Your task to perform on an android device: toggle sleep mode Image 0: 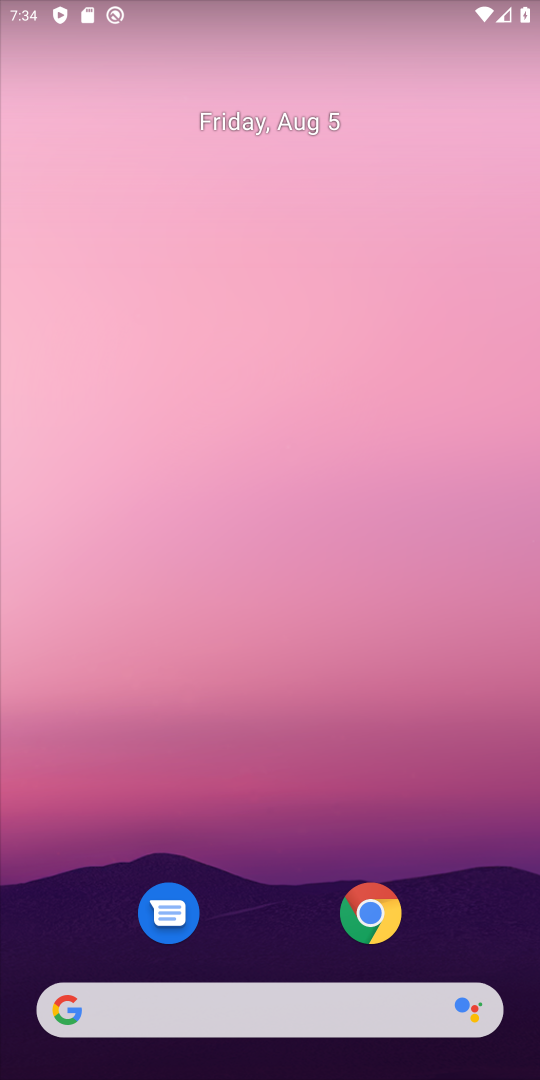
Step 0: drag from (467, 858) to (467, 285)
Your task to perform on an android device: toggle sleep mode Image 1: 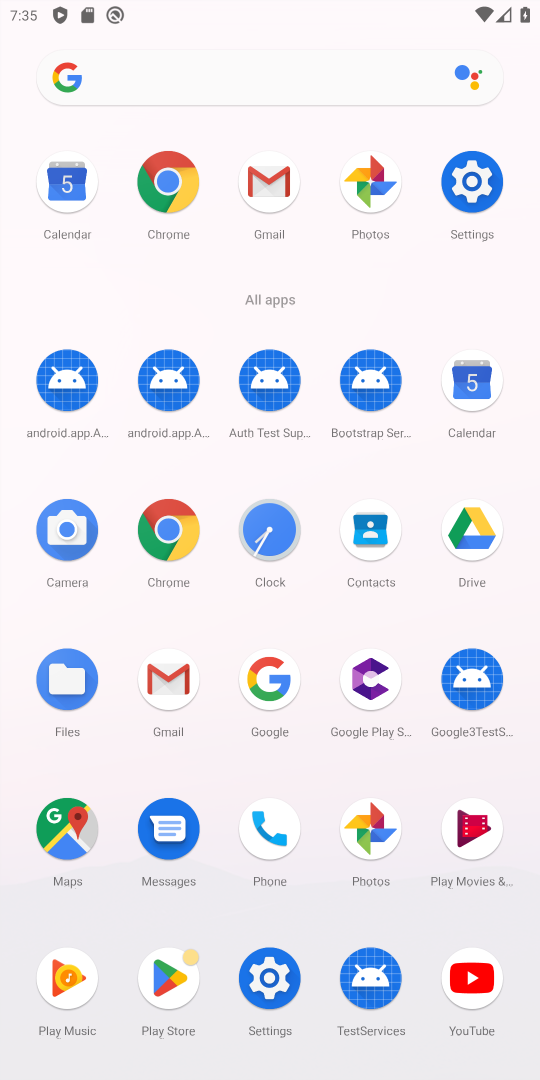
Step 1: click (273, 975)
Your task to perform on an android device: toggle sleep mode Image 2: 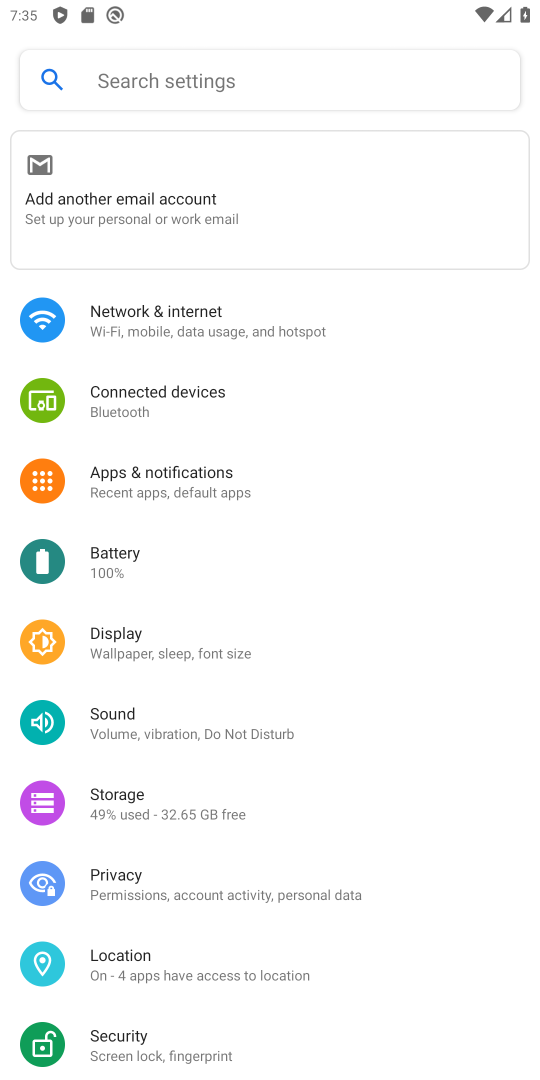
Step 2: drag from (441, 929) to (440, 640)
Your task to perform on an android device: toggle sleep mode Image 3: 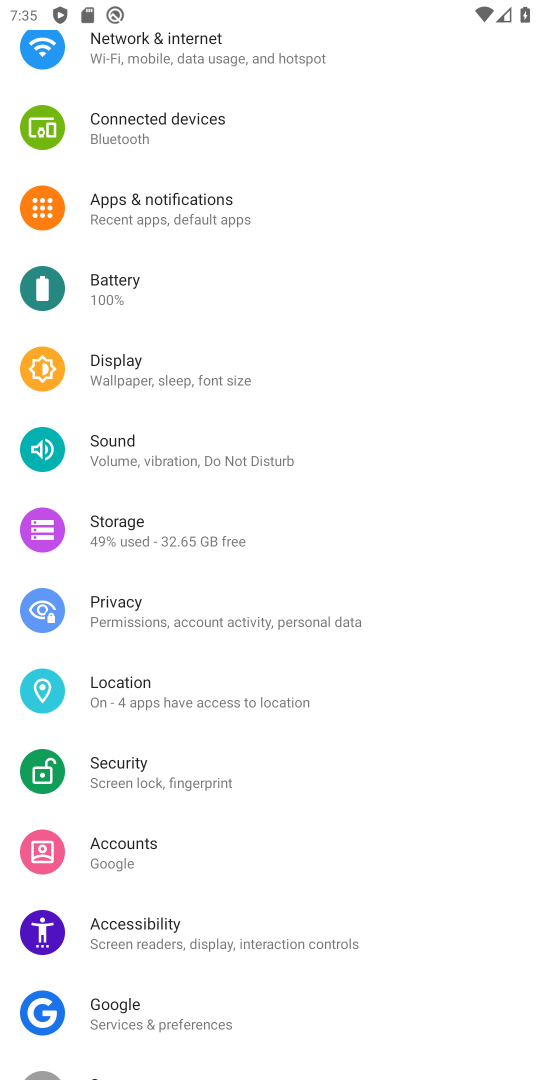
Step 3: drag from (428, 862) to (435, 696)
Your task to perform on an android device: toggle sleep mode Image 4: 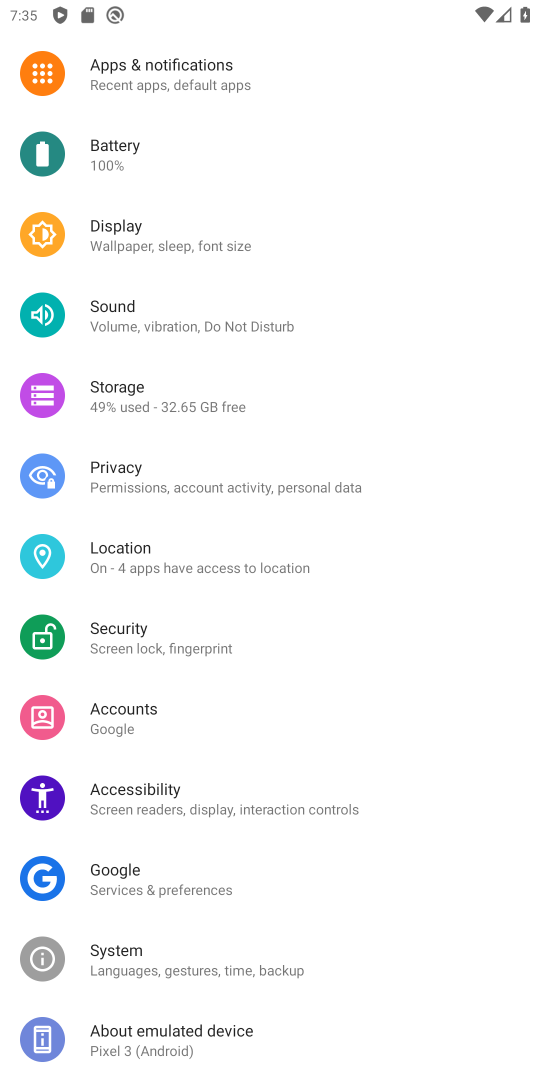
Step 4: drag from (418, 800) to (432, 596)
Your task to perform on an android device: toggle sleep mode Image 5: 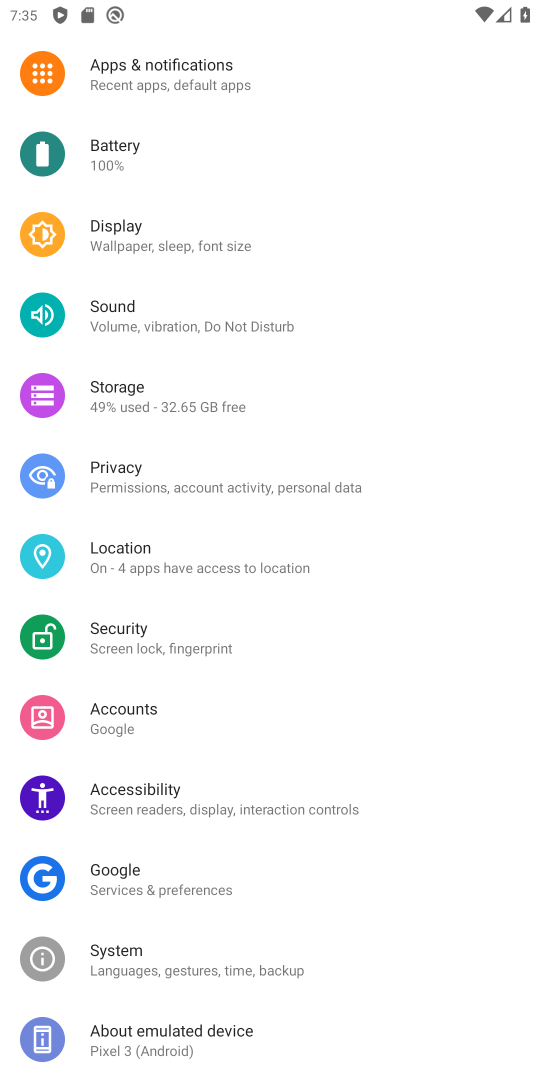
Step 5: drag from (455, 399) to (473, 585)
Your task to perform on an android device: toggle sleep mode Image 6: 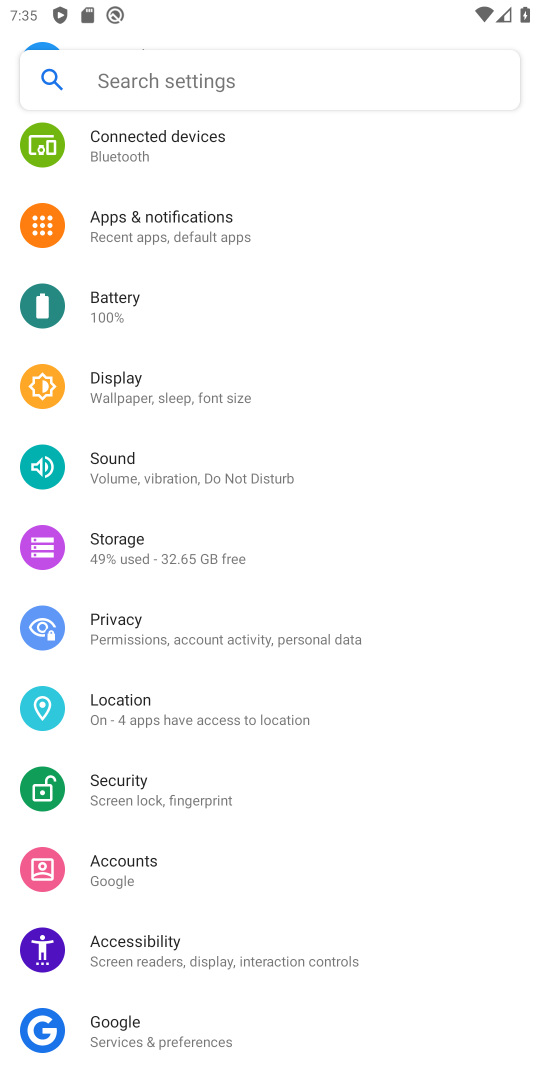
Step 6: drag from (484, 386) to (492, 597)
Your task to perform on an android device: toggle sleep mode Image 7: 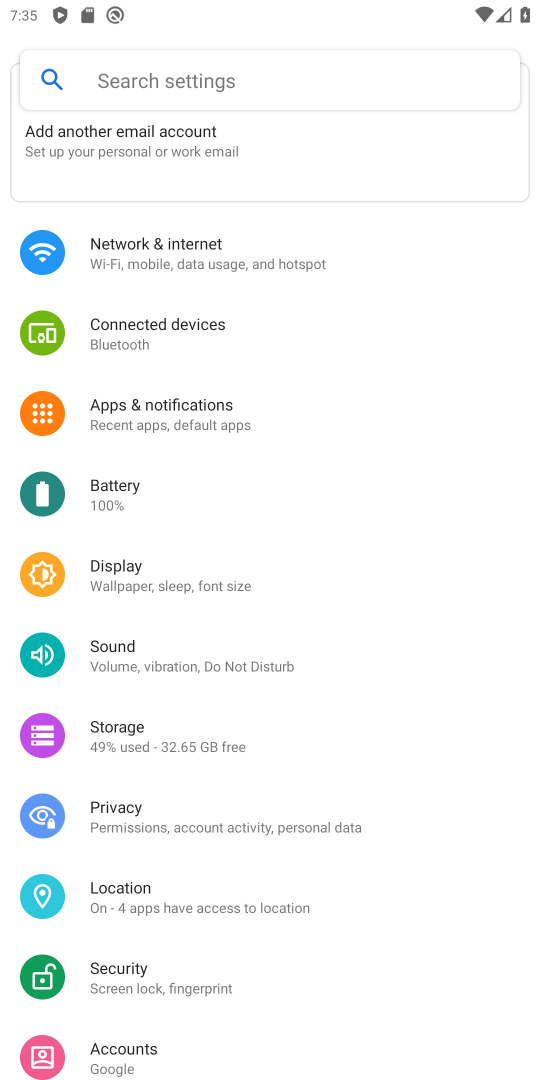
Step 7: click (304, 587)
Your task to perform on an android device: toggle sleep mode Image 8: 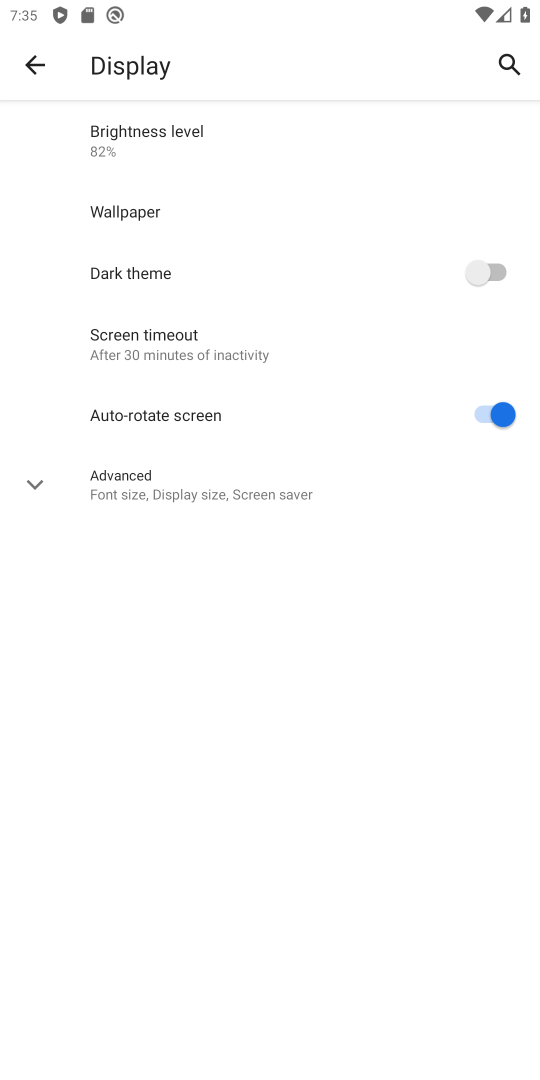
Step 8: click (160, 484)
Your task to perform on an android device: toggle sleep mode Image 9: 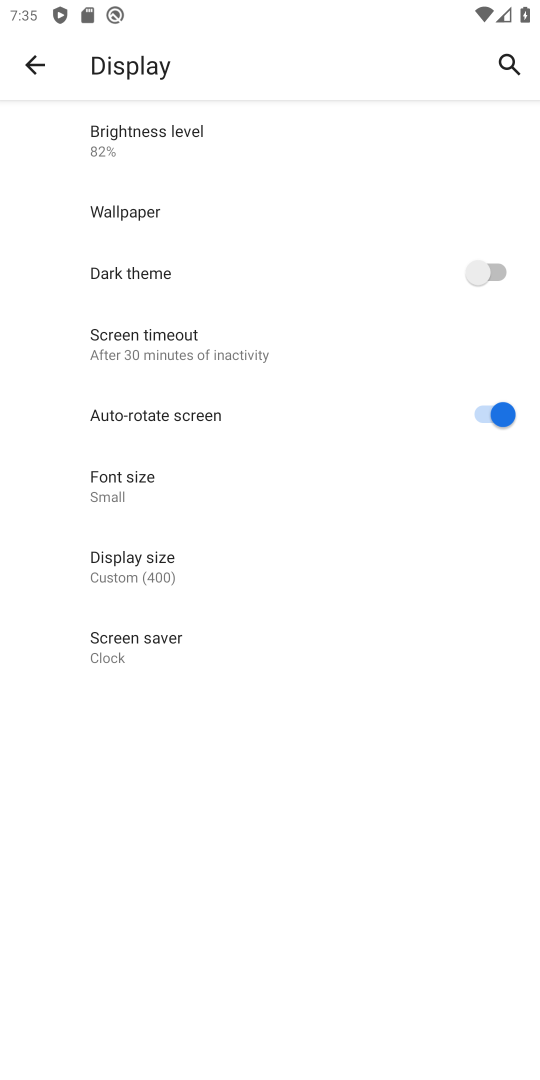
Step 9: task complete